Your task to perform on an android device: Open the calendar app, open the side menu, and click the "Day" option Image 0: 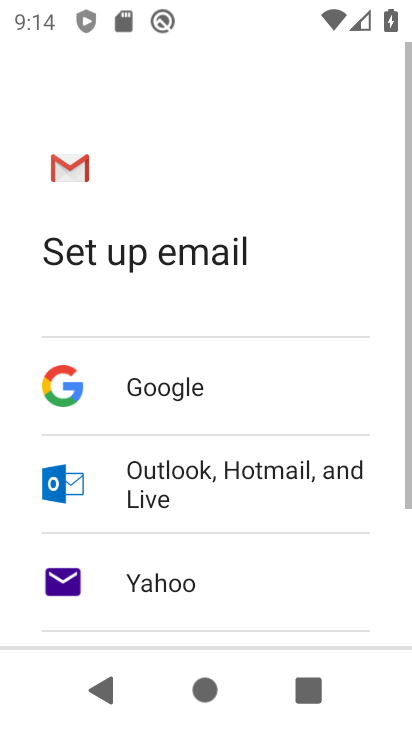
Step 0: press home button
Your task to perform on an android device: Open the calendar app, open the side menu, and click the "Day" option Image 1: 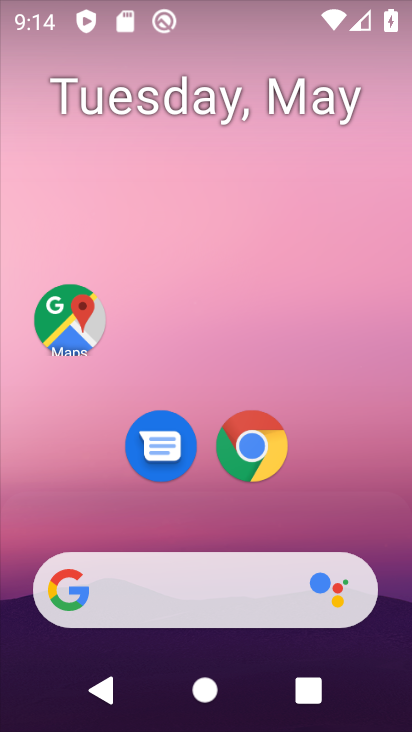
Step 1: drag from (176, 464) to (190, 210)
Your task to perform on an android device: Open the calendar app, open the side menu, and click the "Day" option Image 2: 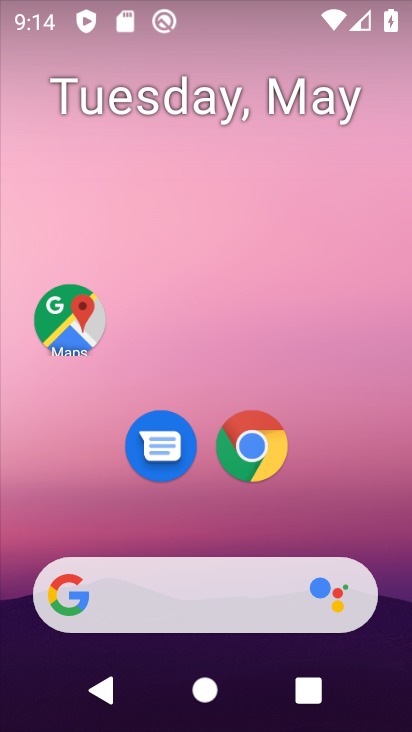
Step 2: drag from (153, 514) to (179, 87)
Your task to perform on an android device: Open the calendar app, open the side menu, and click the "Day" option Image 3: 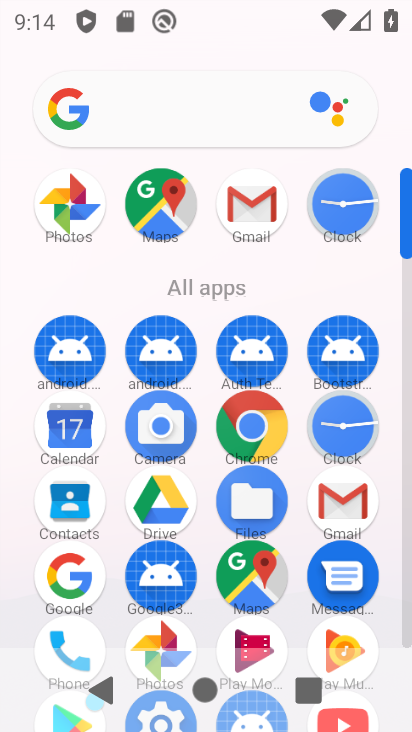
Step 3: click (85, 439)
Your task to perform on an android device: Open the calendar app, open the side menu, and click the "Day" option Image 4: 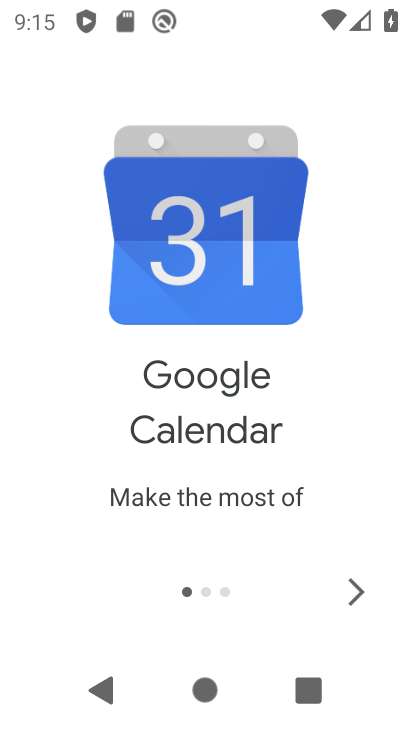
Step 4: click (350, 582)
Your task to perform on an android device: Open the calendar app, open the side menu, and click the "Day" option Image 5: 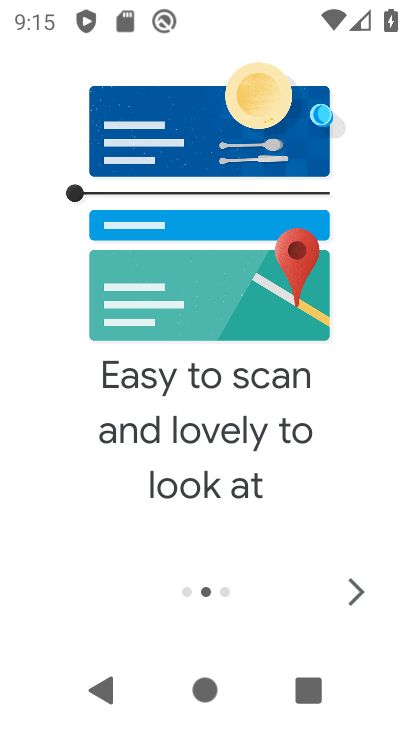
Step 5: click (359, 590)
Your task to perform on an android device: Open the calendar app, open the side menu, and click the "Day" option Image 6: 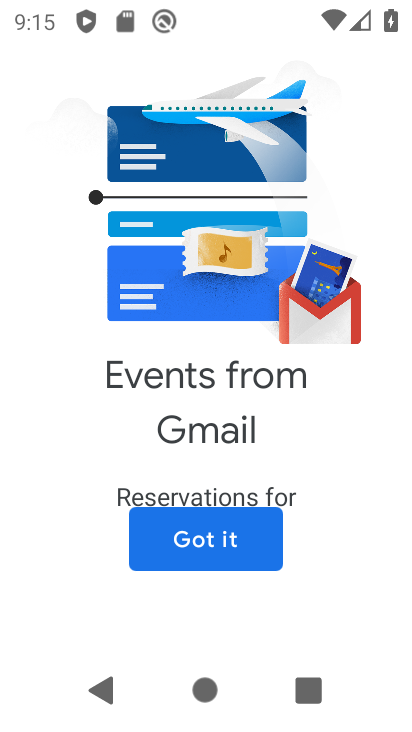
Step 6: click (261, 559)
Your task to perform on an android device: Open the calendar app, open the side menu, and click the "Day" option Image 7: 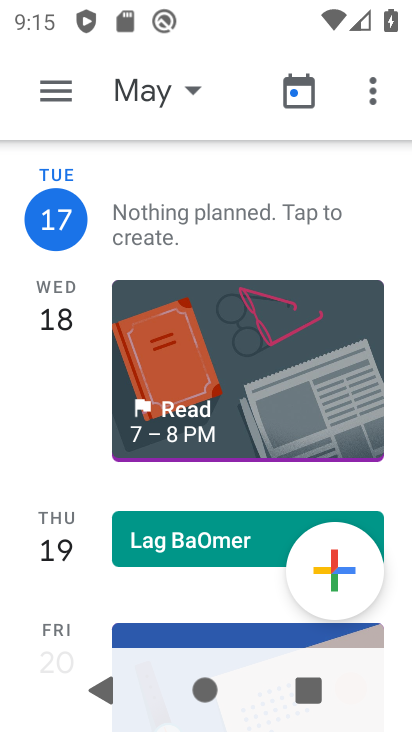
Step 7: click (55, 96)
Your task to perform on an android device: Open the calendar app, open the side menu, and click the "Day" option Image 8: 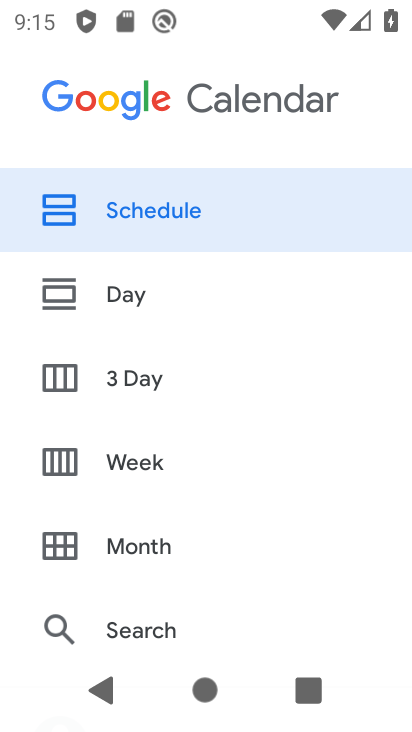
Step 8: click (152, 300)
Your task to perform on an android device: Open the calendar app, open the side menu, and click the "Day" option Image 9: 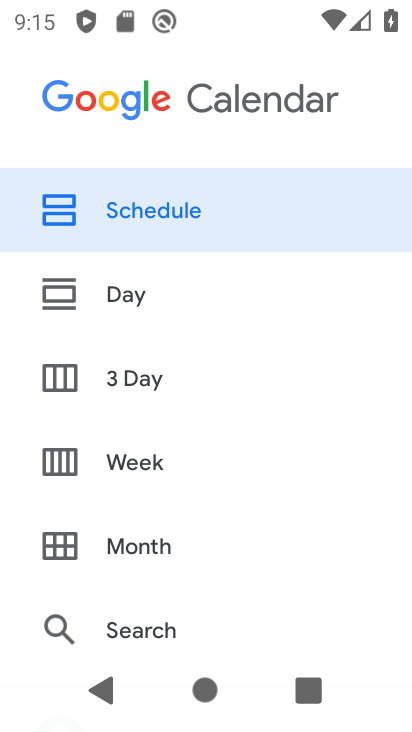
Step 9: click (134, 292)
Your task to perform on an android device: Open the calendar app, open the side menu, and click the "Day" option Image 10: 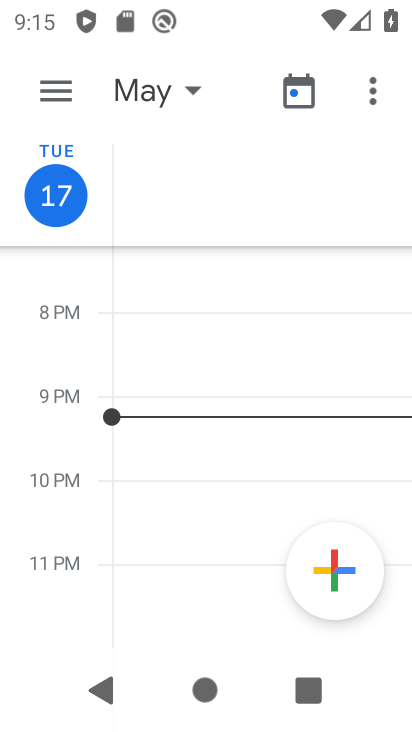
Step 10: task complete